Your task to perform on an android device: turn off wifi Image 0: 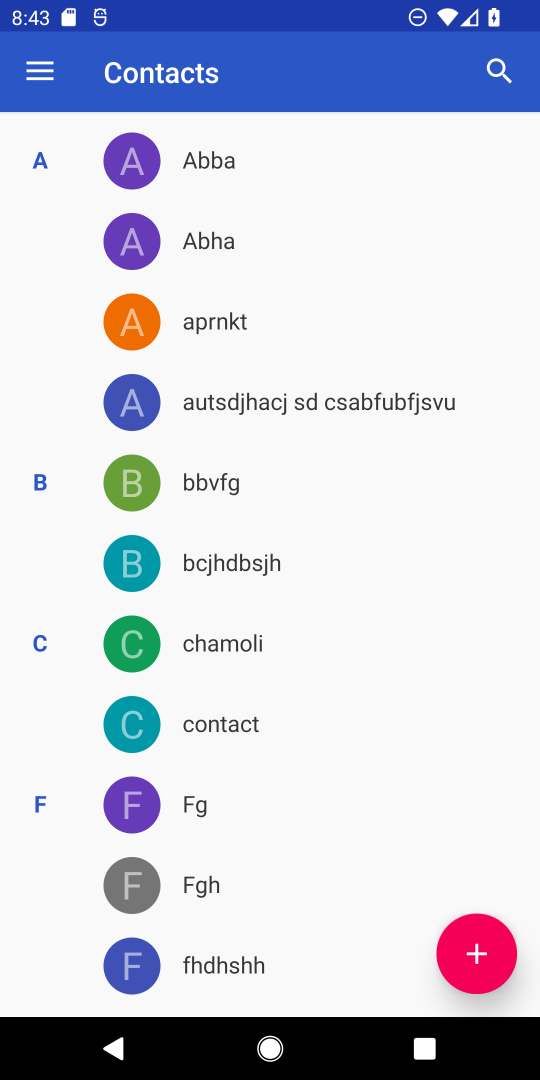
Step 0: press home button
Your task to perform on an android device: turn off wifi Image 1: 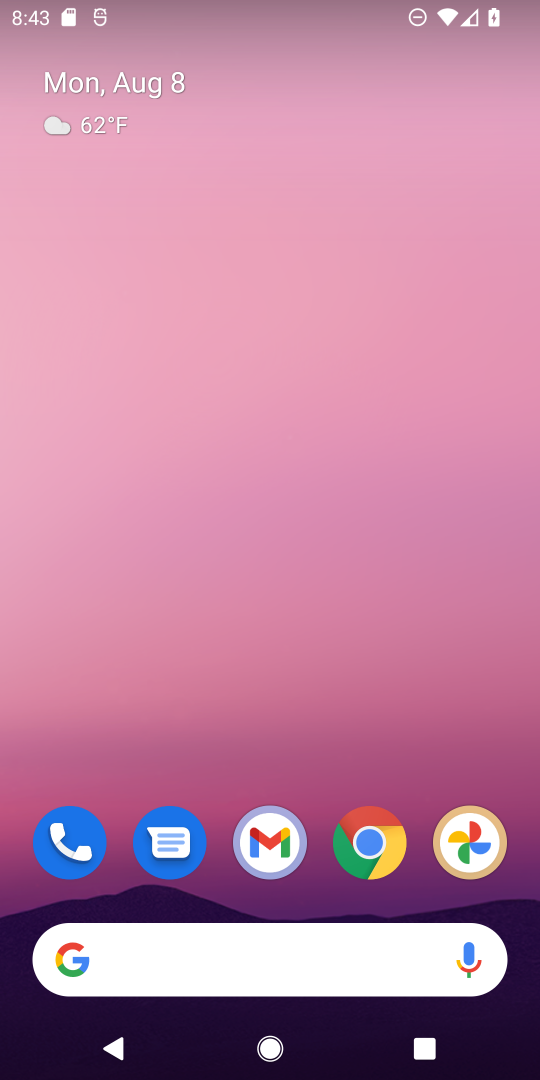
Step 1: drag from (287, 705) to (345, 4)
Your task to perform on an android device: turn off wifi Image 2: 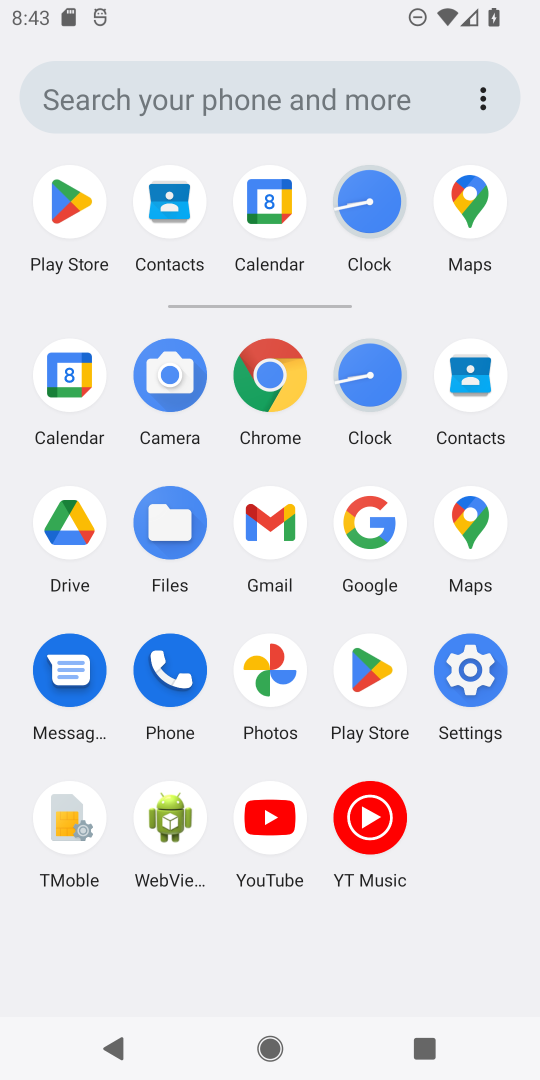
Step 2: click (475, 674)
Your task to perform on an android device: turn off wifi Image 3: 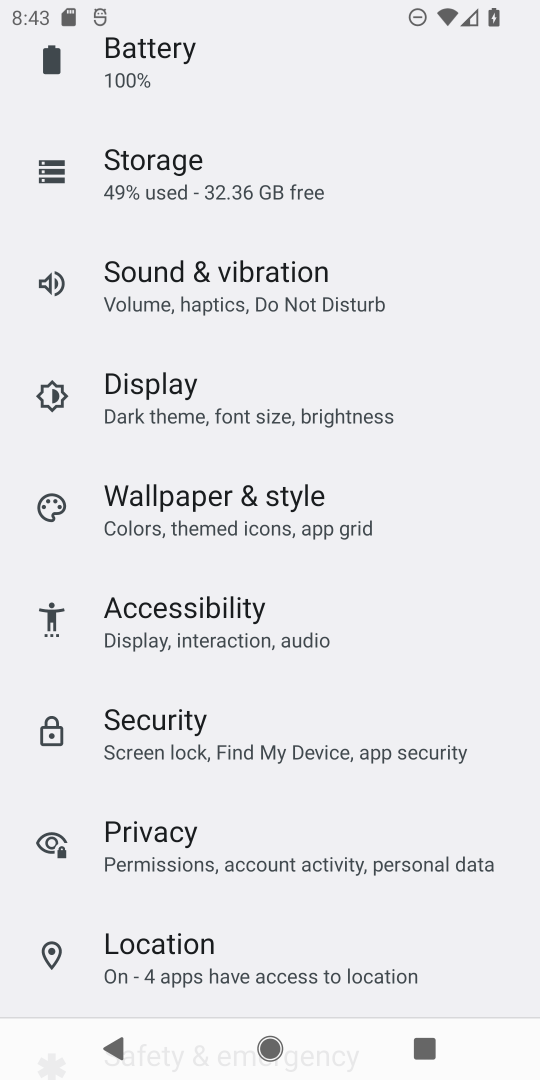
Step 3: drag from (296, 109) to (272, 984)
Your task to perform on an android device: turn off wifi Image 4: 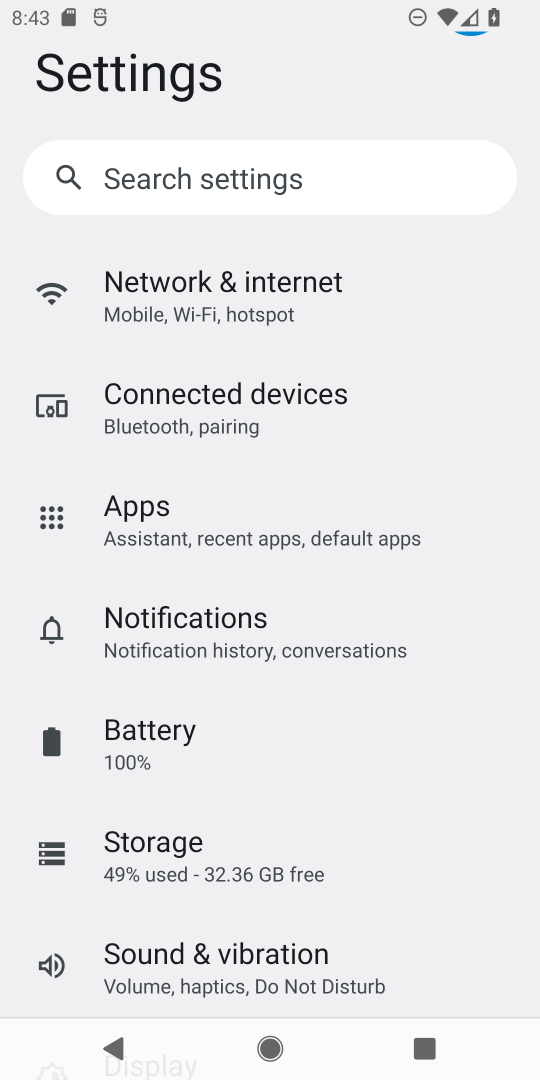
Step 4: click (308, 291)
Your task to perform on an android device: turn off wifi Image 5: 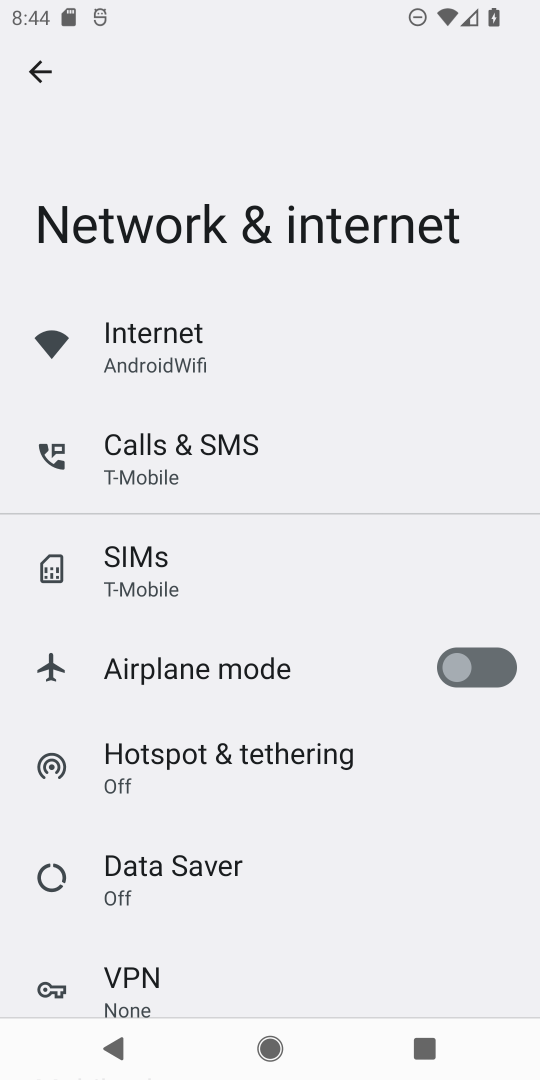
Step 5: task complete